Your task to perform on an android device: Do I have any events tomorrow? Image 0: 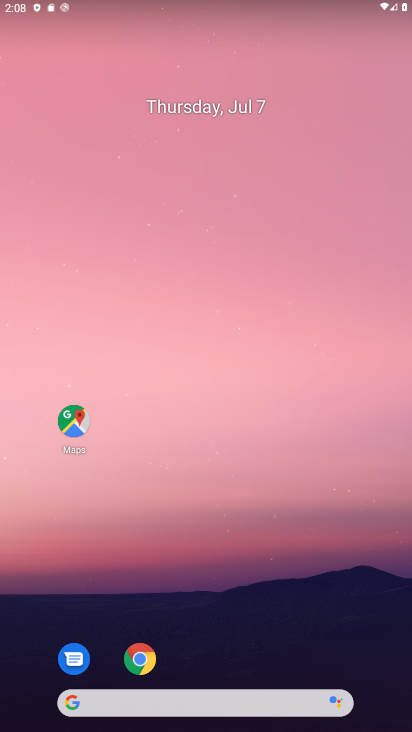
Step 0: press home button
Your task to perform on an android device: Do I have any events tomorrow? Image 1: 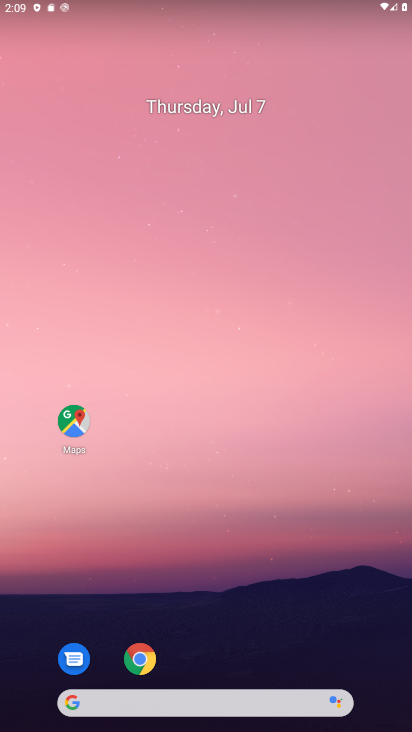
Step 1: press home button
Your task to perform on an android device: Do I have any events tomorrow? Image 2: 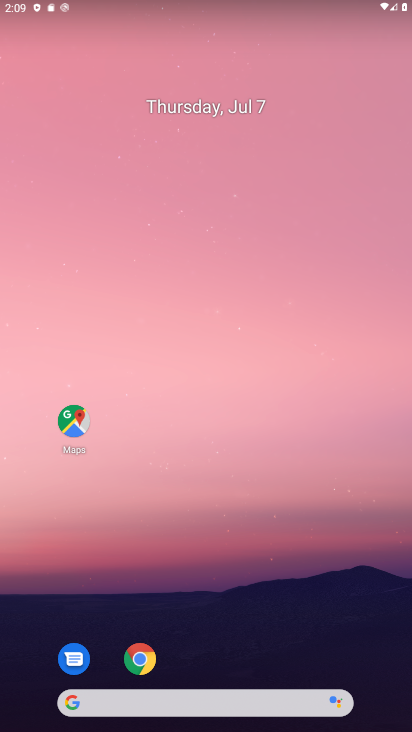
Step 2: drag from (212, 671) to (207, 0)
Your task to perform on an android device: Do I have any events tomorrow? Image 3: 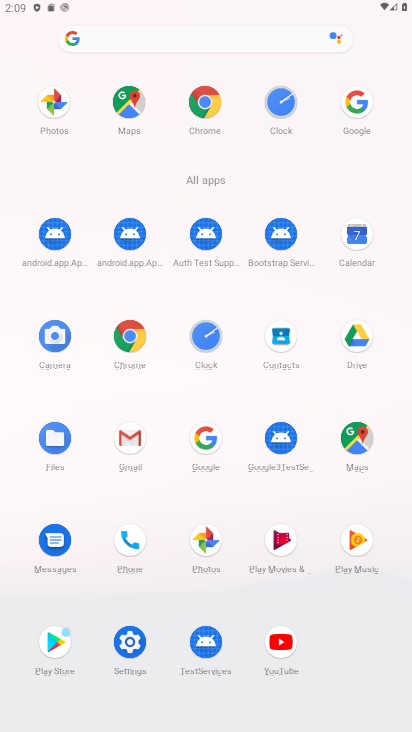
Step 3: click (358, 232)
Your task to perform on an android device: Do I have any events tomorrow? Image 4: 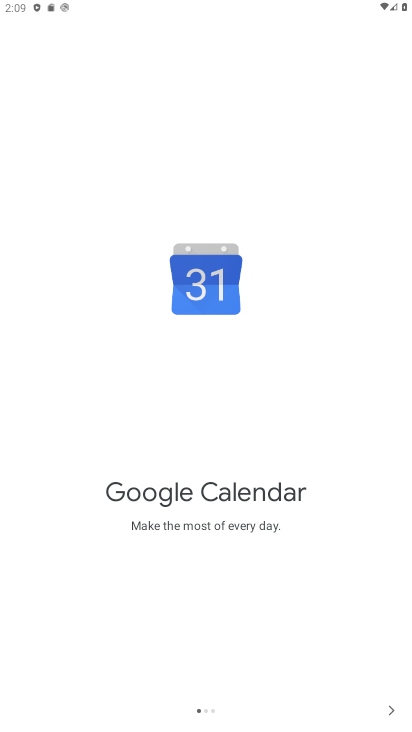
Step 4: click (388, 710)
Your task to perform on an android device: Do I have any events tomorrow? Image 5: 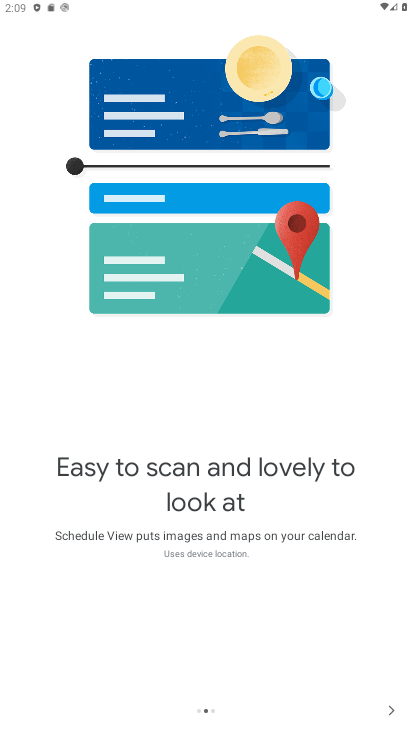
Step 5: click (388, 710)
Your task to perform on an android device: Do I have any events tomorrow? Image 6: 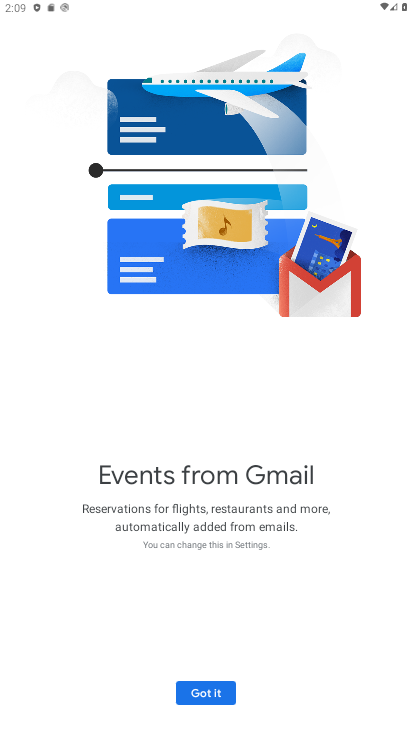
Step 6: click (207, 689)
Your task to perform on an android device: Do I have any events tomorrow? Image 7: 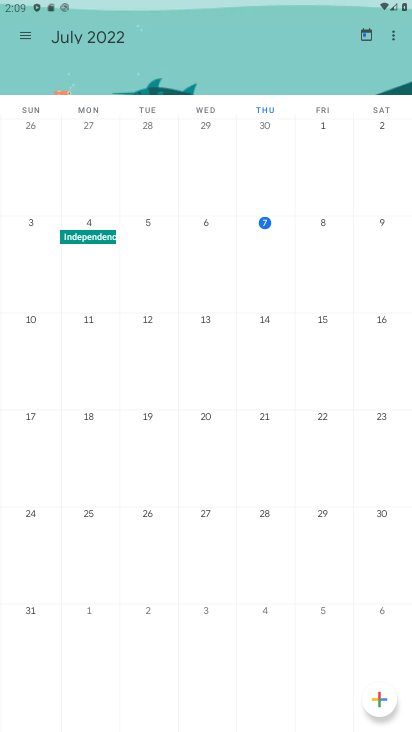
Step 7: click (316, 228)
Your task to perform on an android device: Do I have any events tomorrow? Image 8: 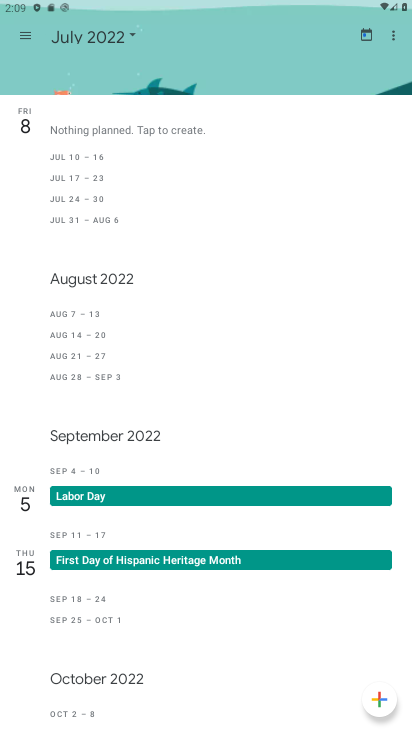
Step 8: click (41, 123)
Your task to perform on an android device: Do I have any events tomorrow? Image 9: 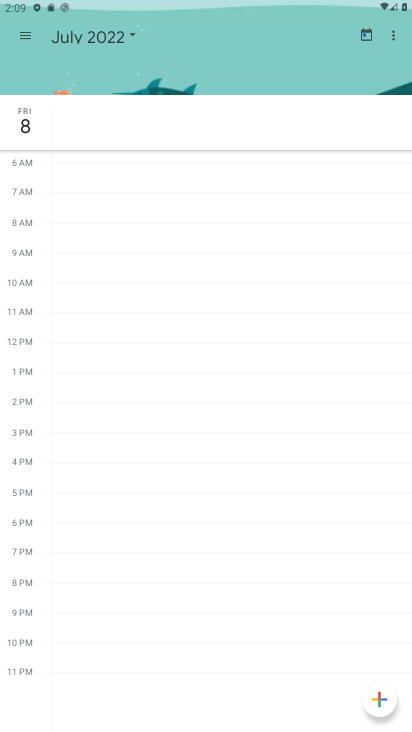
Step 9: click (22, 36)
Your task to perform on an android device: Do I have any events tomorrow? Image 10: 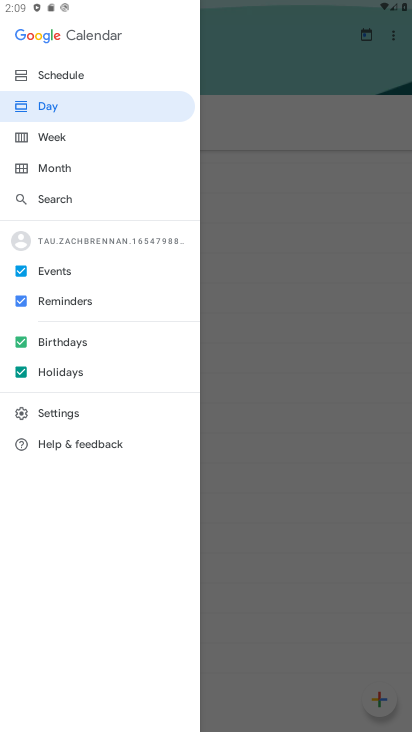
Step 10: click (20, 368)
Your task to perform on an android device: Do I have any events tomorrow? Image 11: 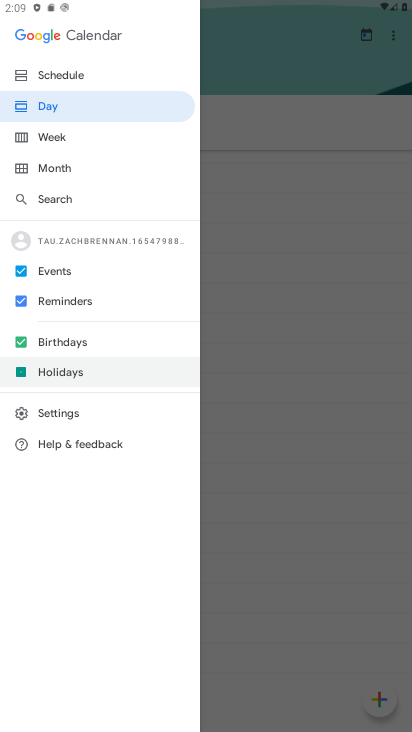
Step 11: click (23, 344)
Your task to perform on an android device: Do I have any events tomorrow? Image 12: 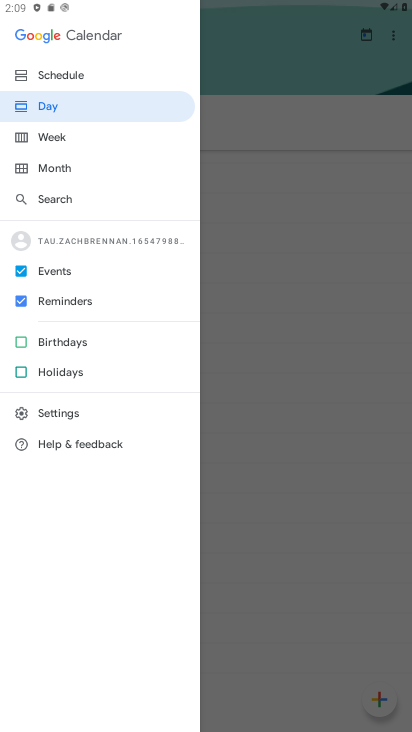
Step 12: click (24, 299)
Your task to perform on an android device: Do I have any events tomorrow? Image 13: 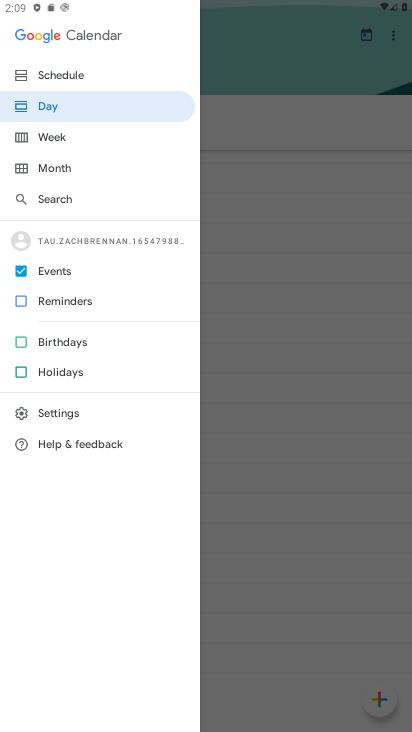
Step 13: click (65, 76)
Your task to perform on an android device: Do I have any events tomorrow? Image 14: 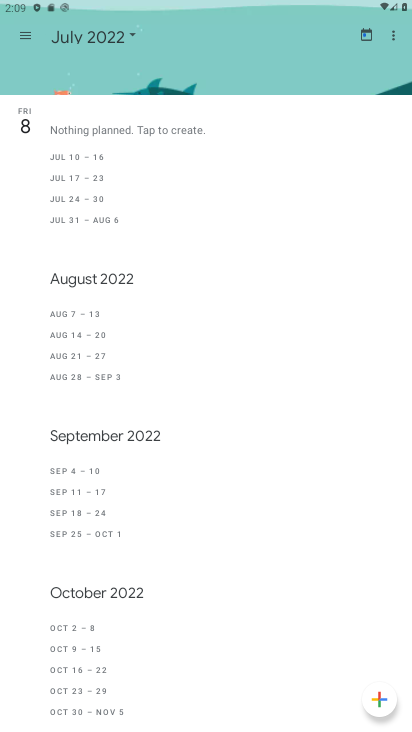
Step 14: click (24, 120)
Your task to perform on an android device: Do I have any events tomorrow? Image 15: 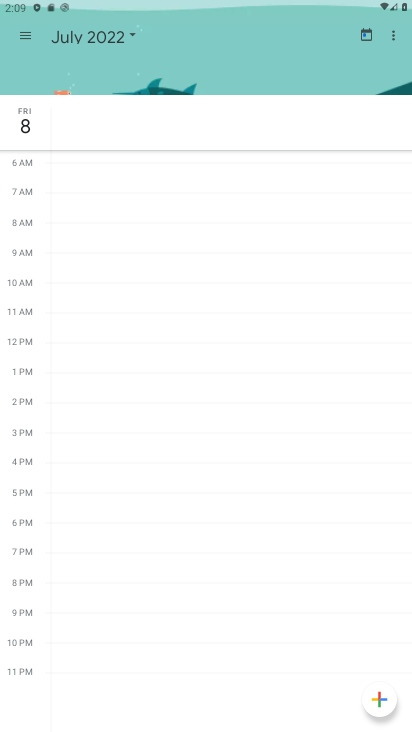
Step 15: task complete